Your task to perform on an android device: toggle javascript in the chrome app Image 0: 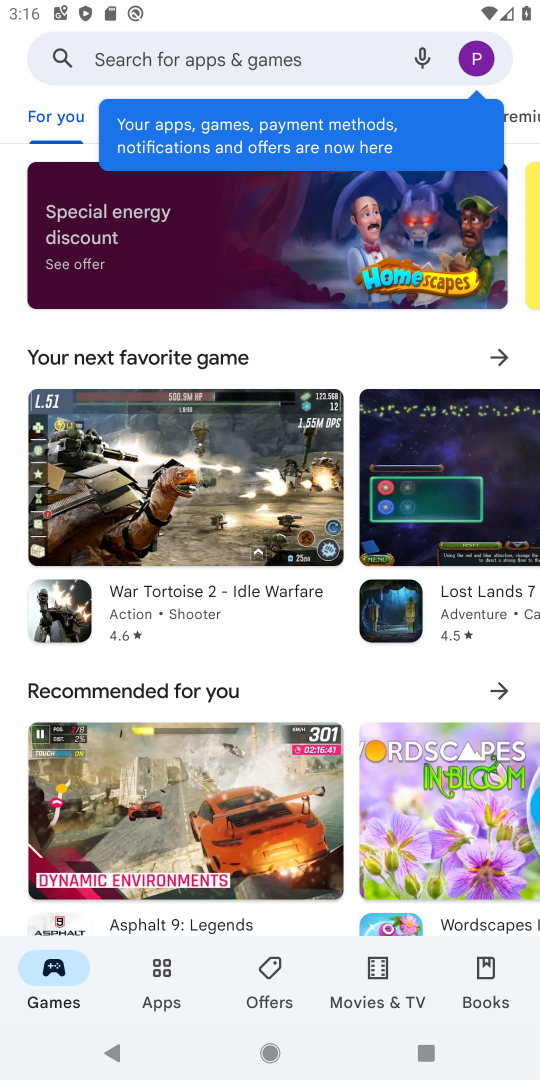
Step 0: press home button
Your task to perform on an android device: toggle javascript in the chrome app Image 1: 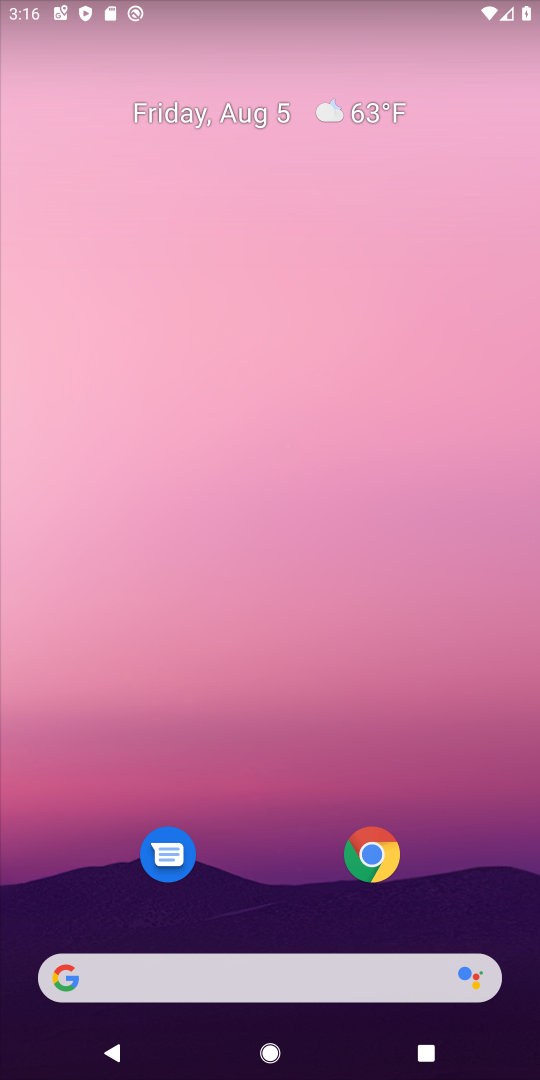
Step 1: click (369, 856)
Your task to perform on an android device: toggle javascript in the chrome app Image 2: 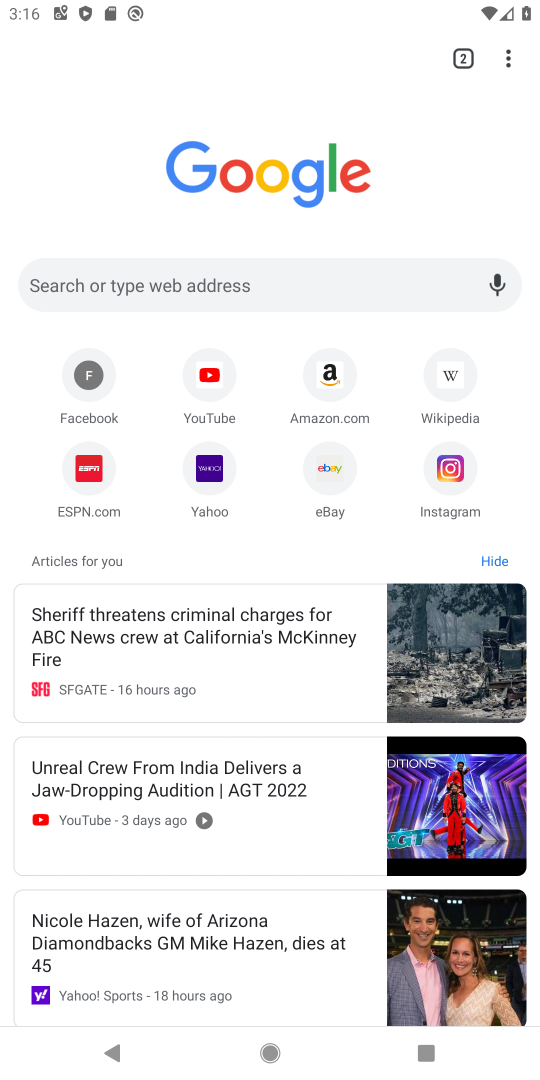
Step 2: click (506, 55)
Your task to perform on an android device: toggle javascript in the chrome app Image 3: 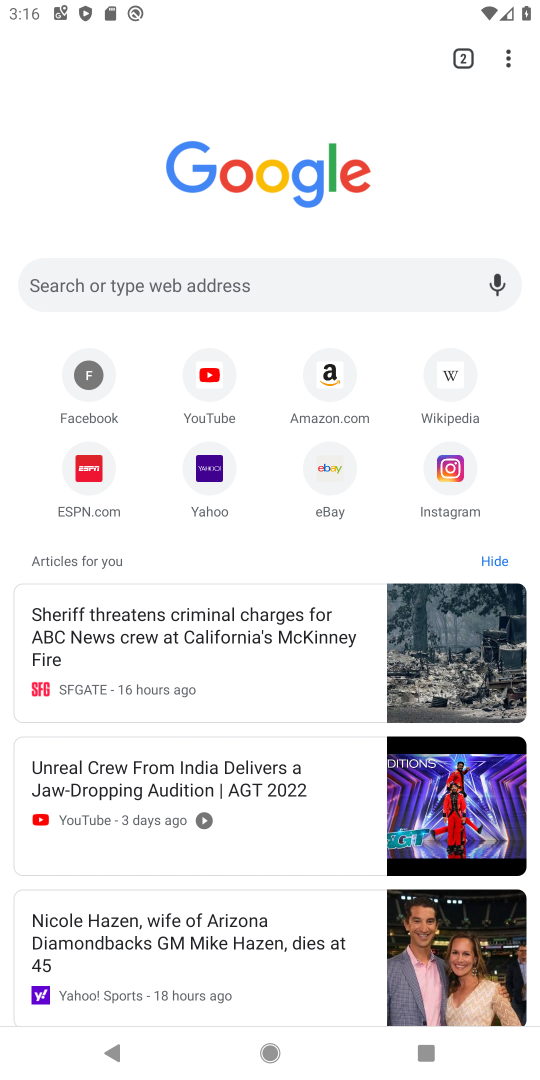
Step 3: click (506, 55)
Your task to perform on an android device: toggle javascript in the chrome app Image 4: 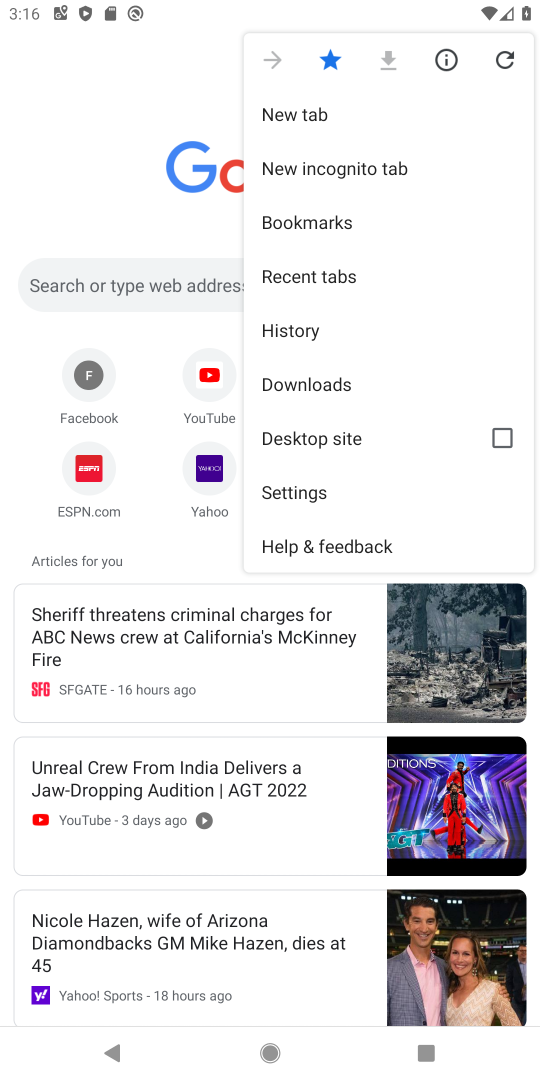
Step 4: click (306, 498)
Your task to perform on an android device: toggle javascript in the chrome app Image 5: 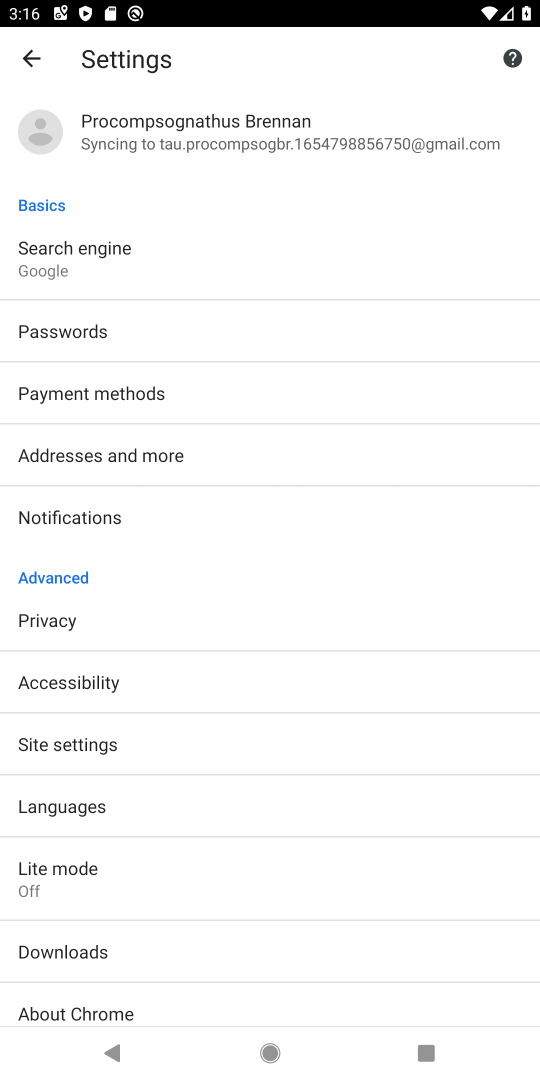
Step 5: click (58, 743)
Your task to perform on an android device: toggle javascript in the chrome app Image 6: 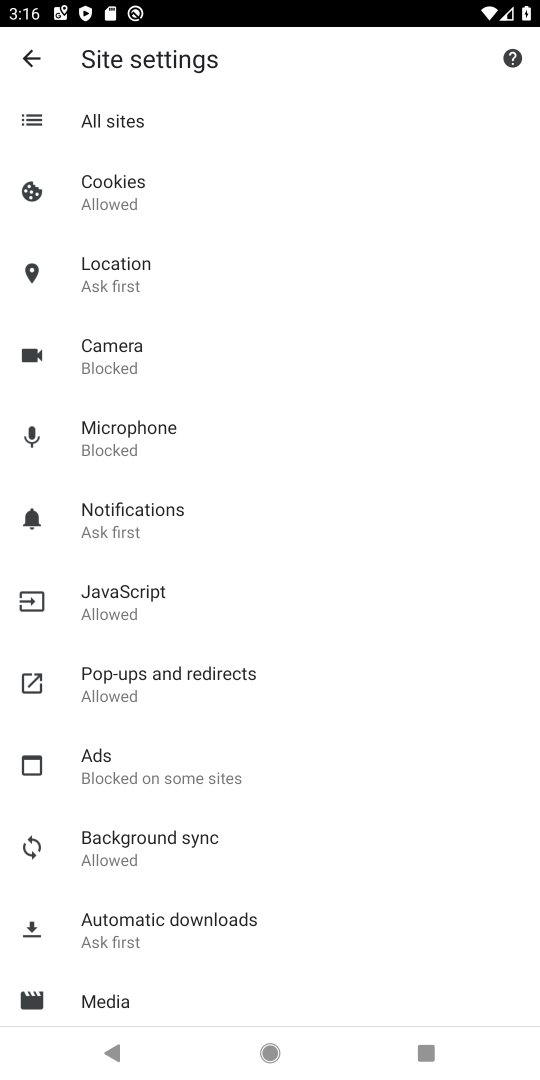
Step 6: click (148, 601)
Your task to perform on an android device: toggle javascript in the chrome app Image 7: 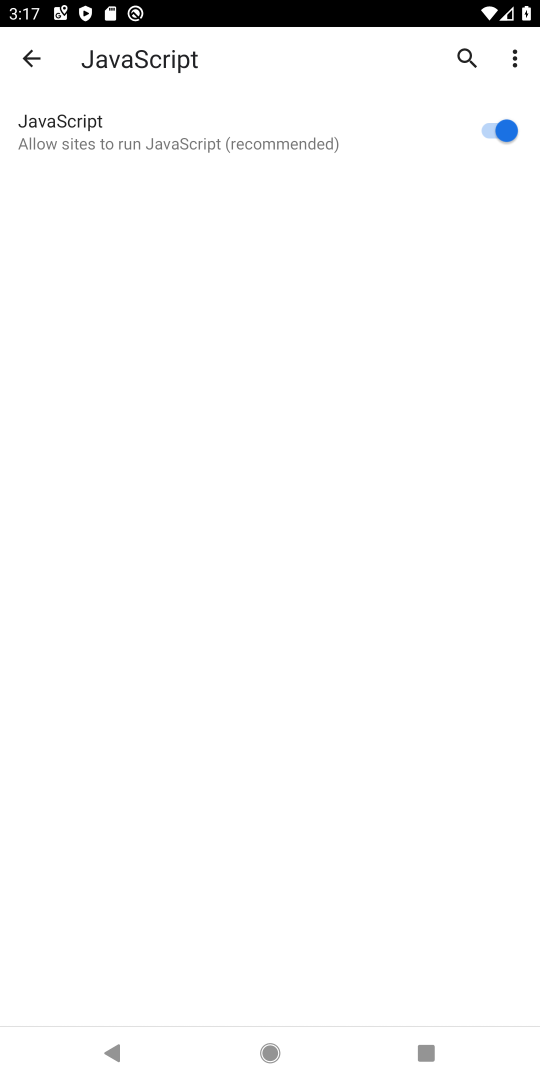
Step 7: task complete